Your task to perform on an android device: Go to Google Image 0: 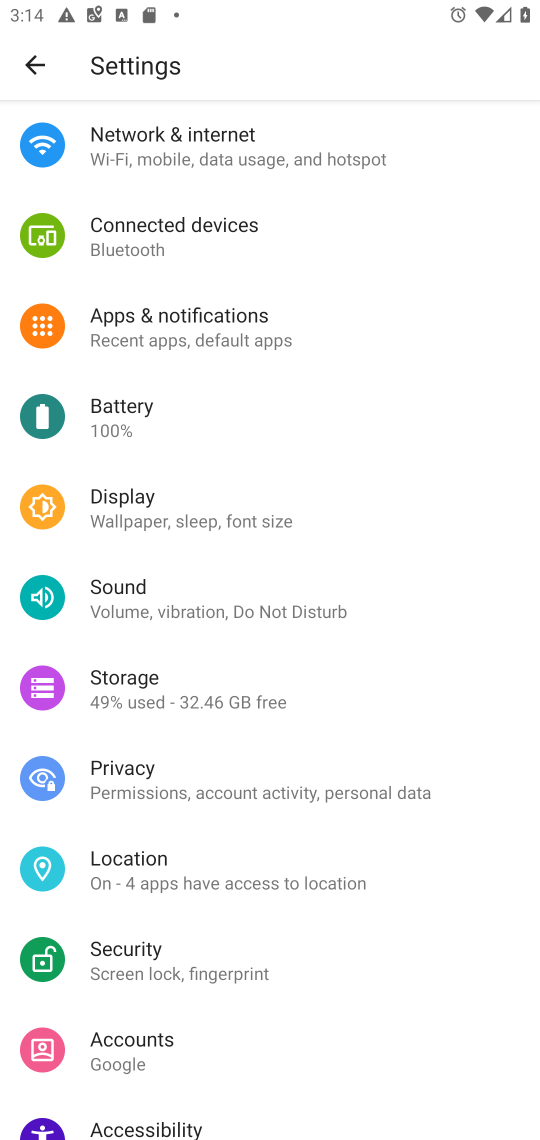
Step 0: press home button
Your task to perform on an android device: Go to Google Image 1: 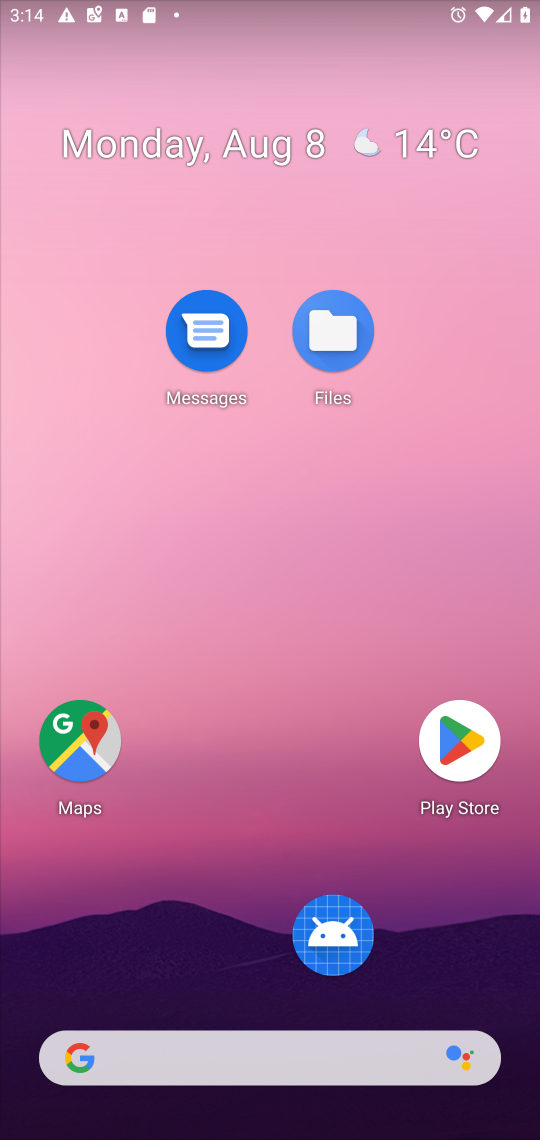
Step 1: drag from (354, 1036) to (385, 0)
Your task to perform on an android device: Go to Google Image 2: 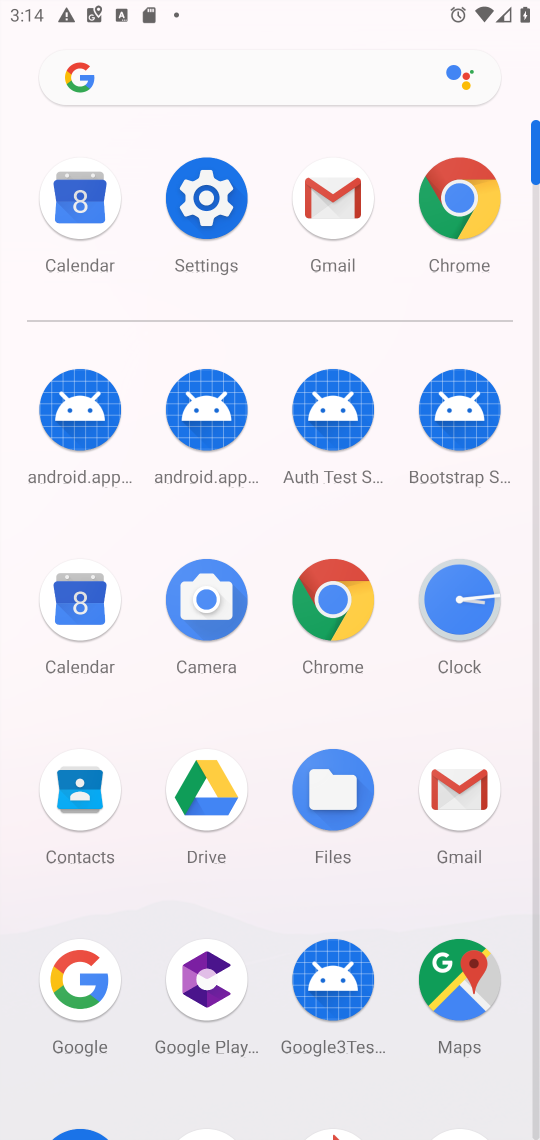
Step 2: click (99, 973)
Your task to perform on an android device: Go to Google Image 3: 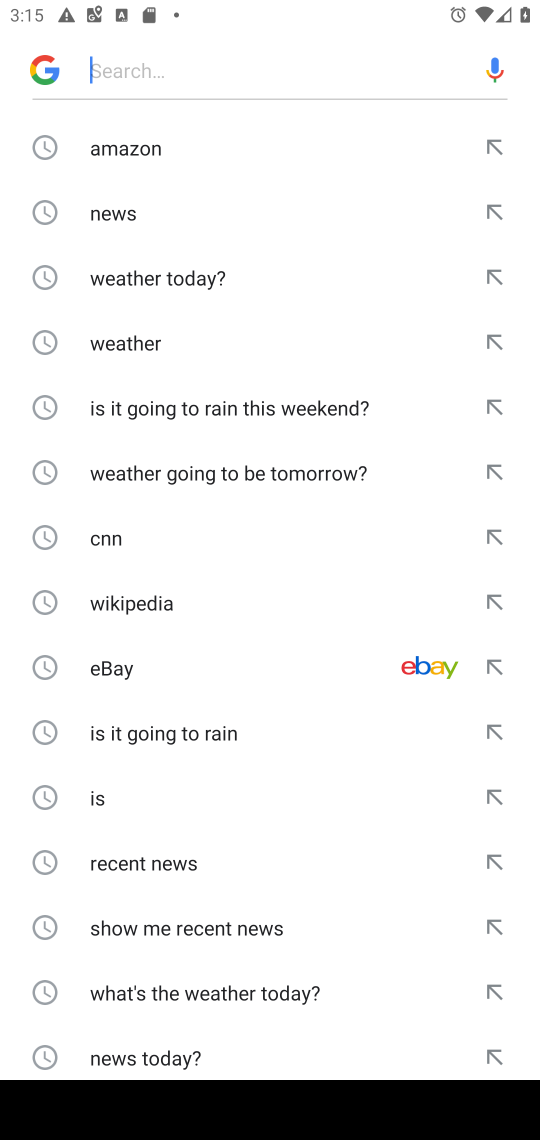
Step 3: press back button
Your task to perform on an android device: Go to Google Image 4: 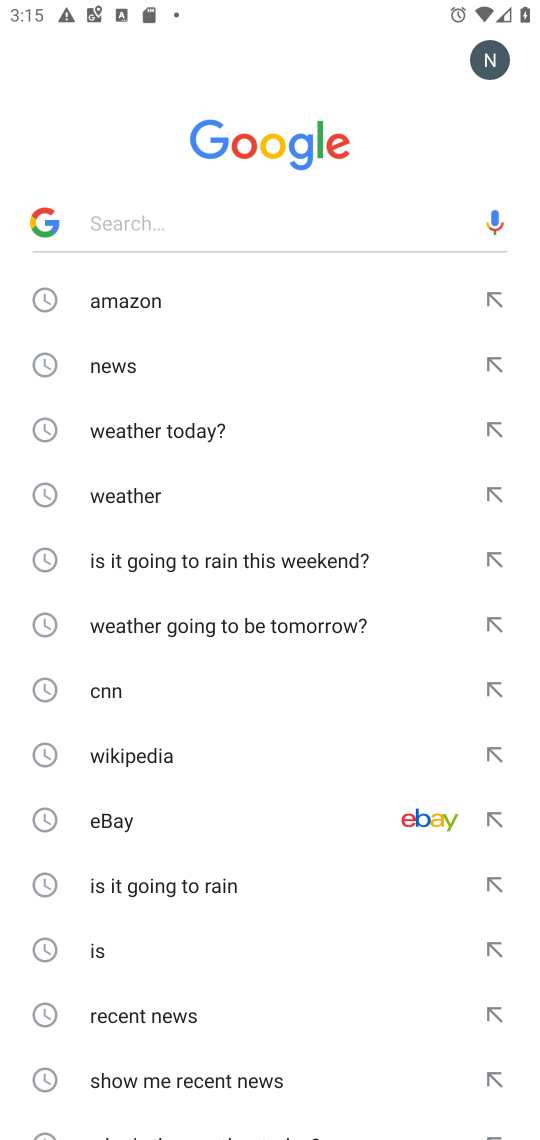
Step 4: press back button
Your task to perform on an android device: Go to Google Image 5: 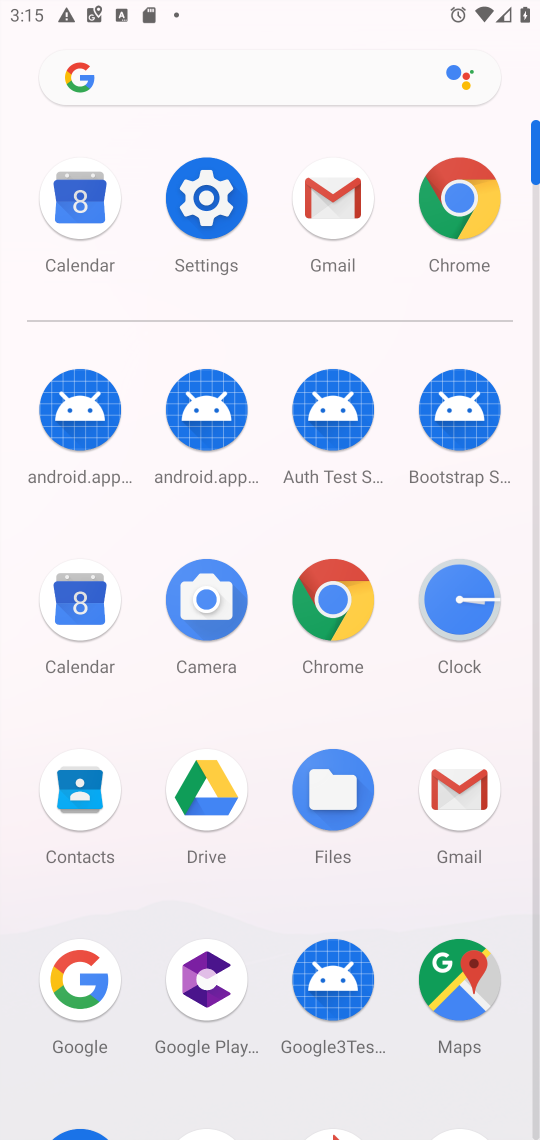
Step 5: click (84, 958)
Your task to perform on an android device: Go to Google Image 6: 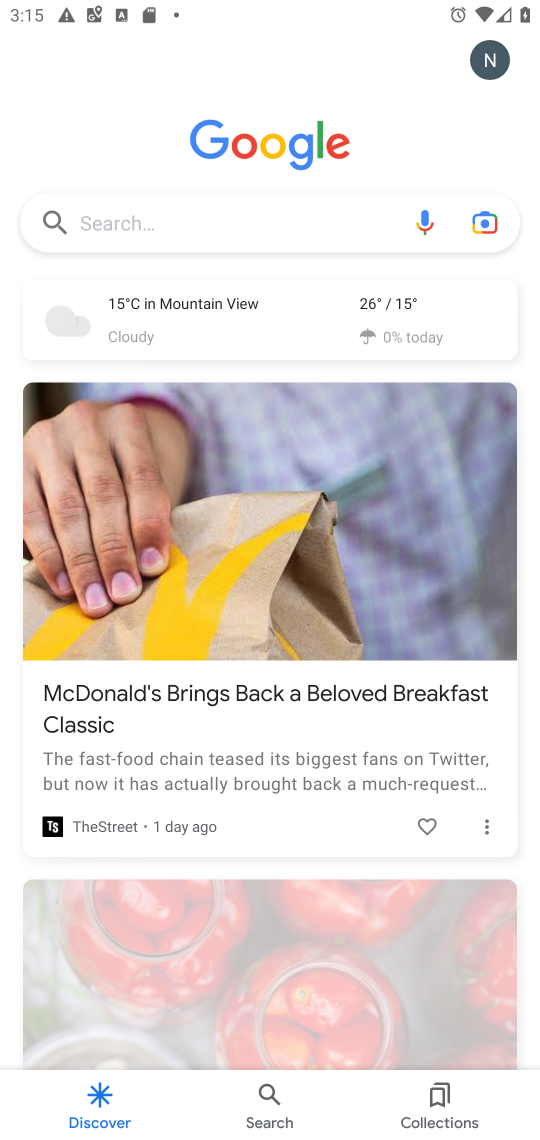
Step 6: task complete